Your task to perform on an android device: Clear the cart on amazon. Search for "dell xps" on amazon, select the first entry, and add it to the cart. Image 0: 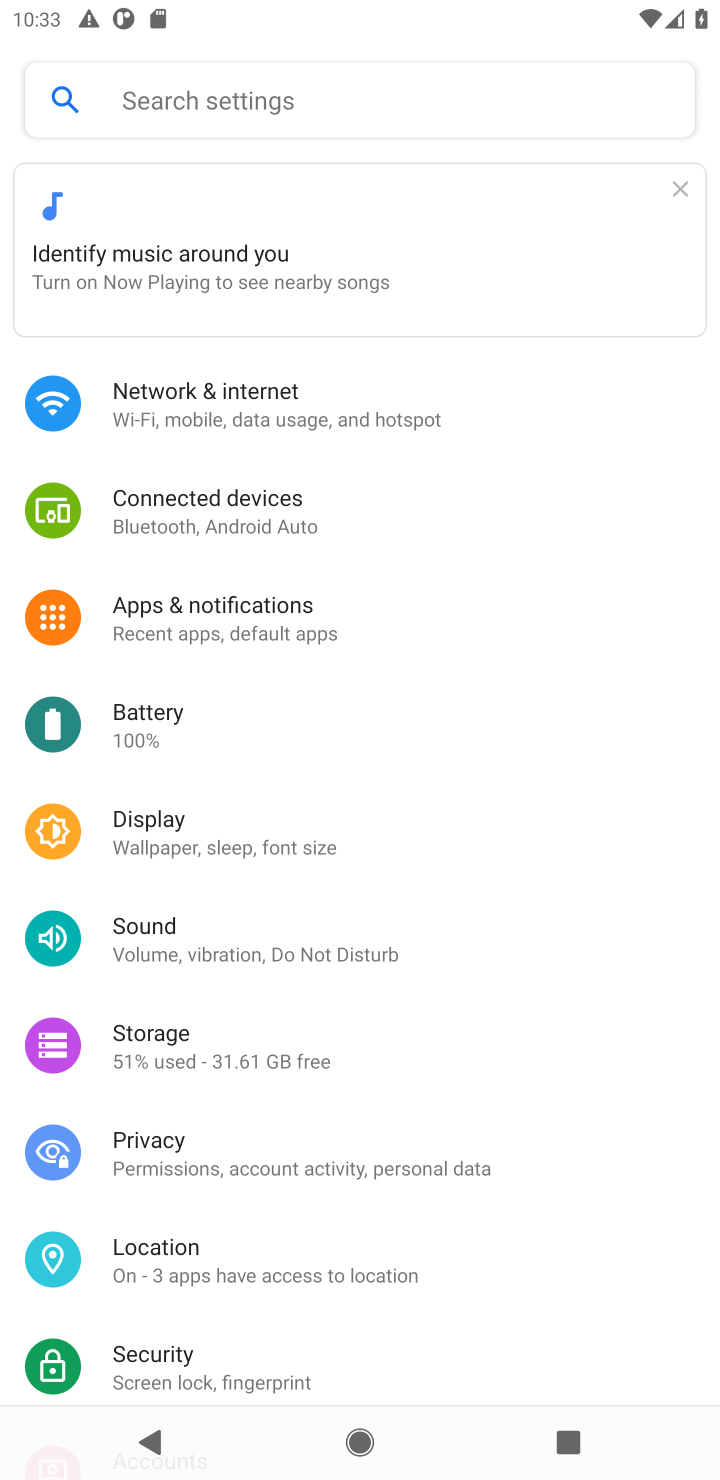
Step 0: press home button
Your task to perform on an android device: Clear the cart on amazon. Search for "dell xps" on amazon, select the first entry, and add it to the cart. Image 1: 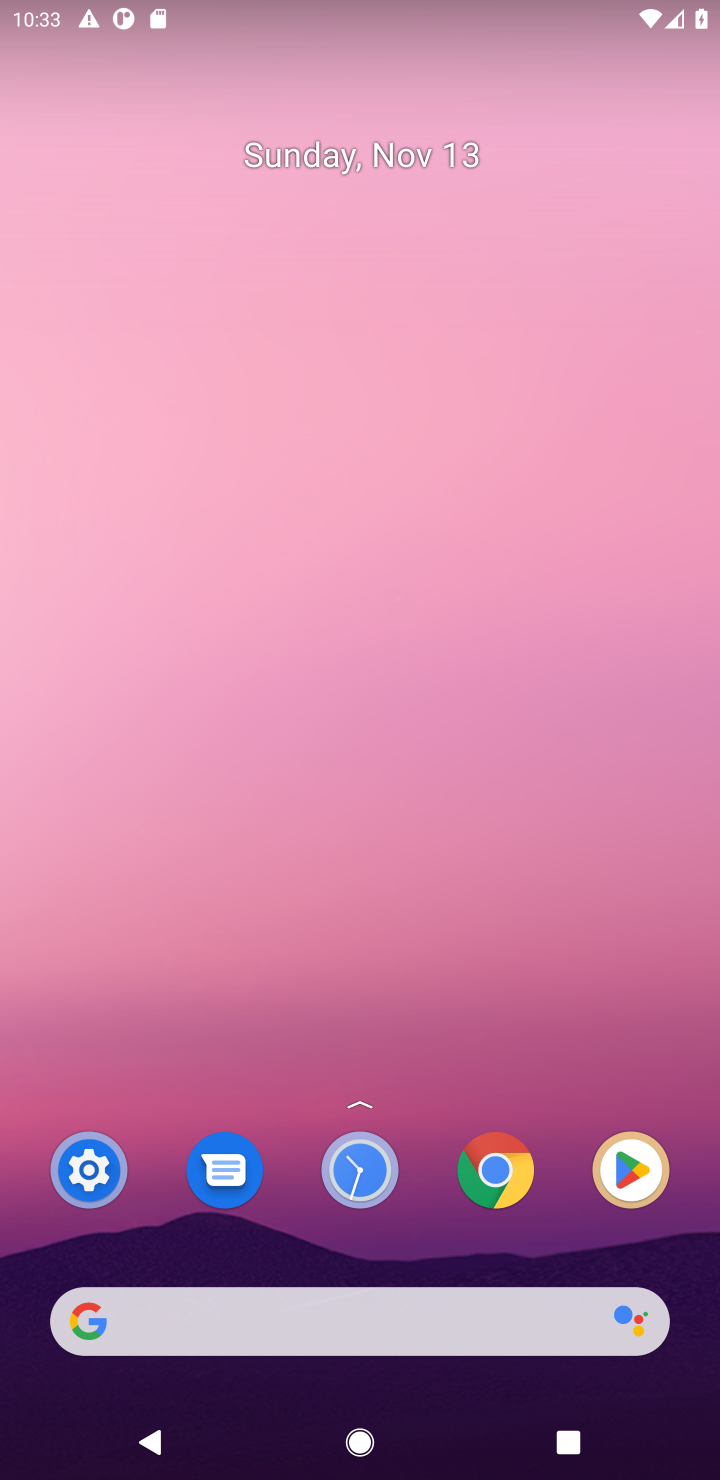
Step 1: click (381, 1307)
Your task to perform on an android device: Clear the cart on amazon. Search for "dell xps" on amazon, select the first entry, and add it to the cart. Image 2: 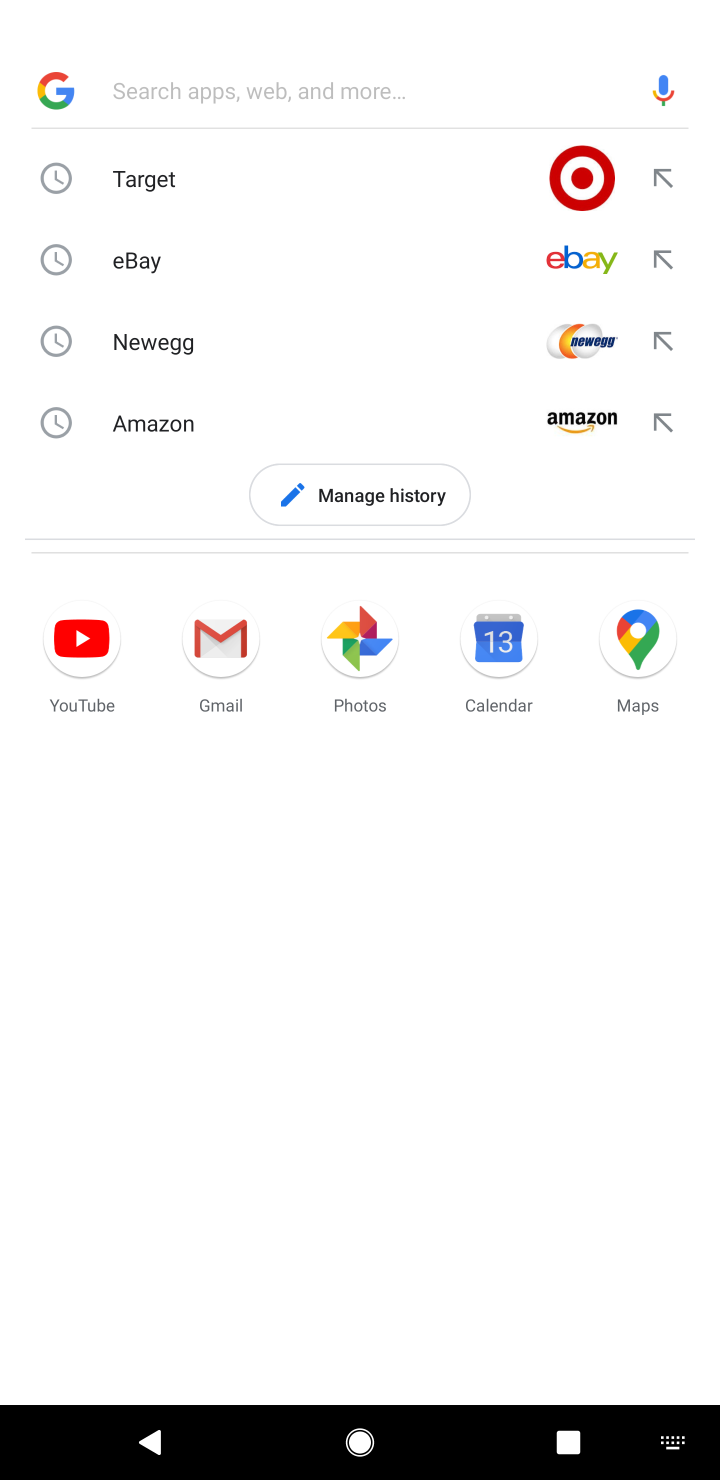
Step 2: type "amazon.com"
Your task to perform on an android device: Clear the cart on amazon. Search for "dell xps" on amazon, select the first entry, and add it to the cart. Image 3: 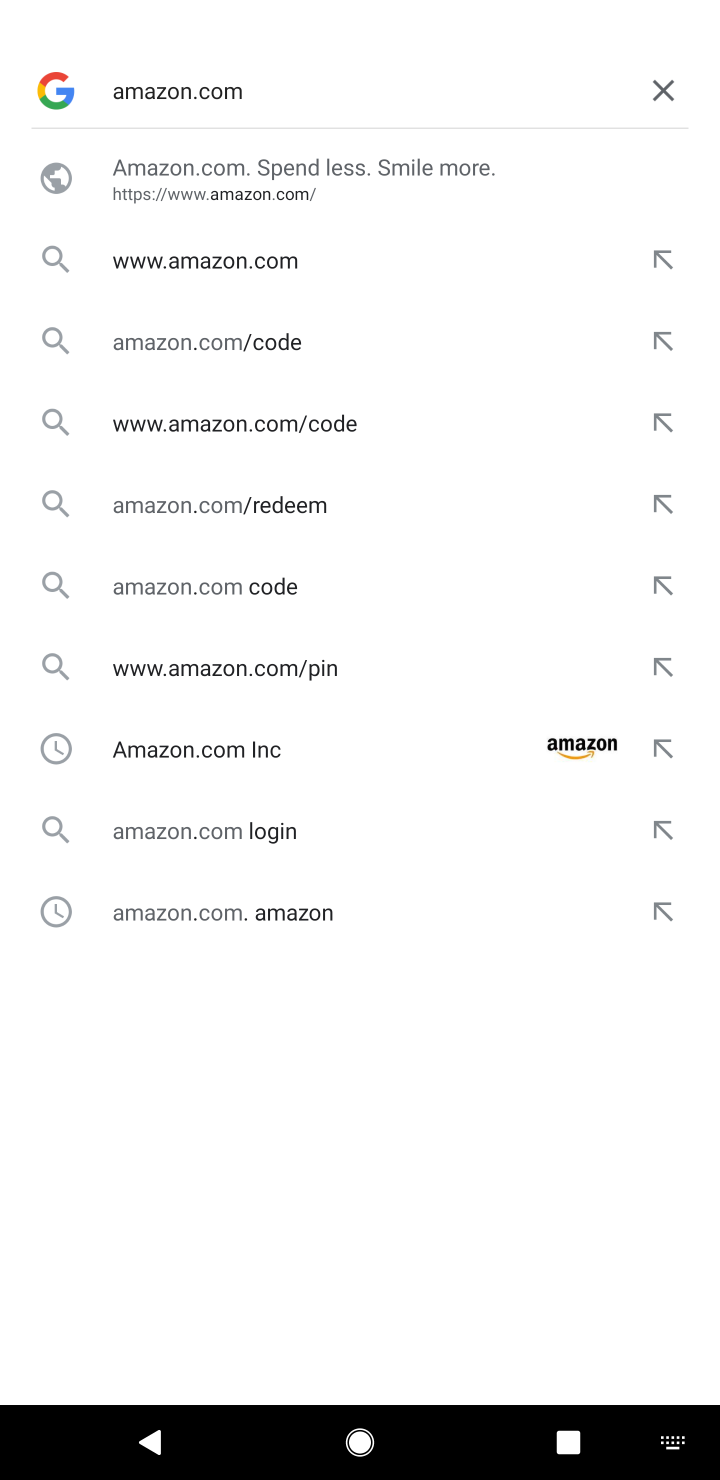
Step 3: click (405, 748)
Your task to perform on an android device: Clear the cart on amazon. Search for "dell xps" on amazon, select the first entry, and add it to the cart. Image 4: 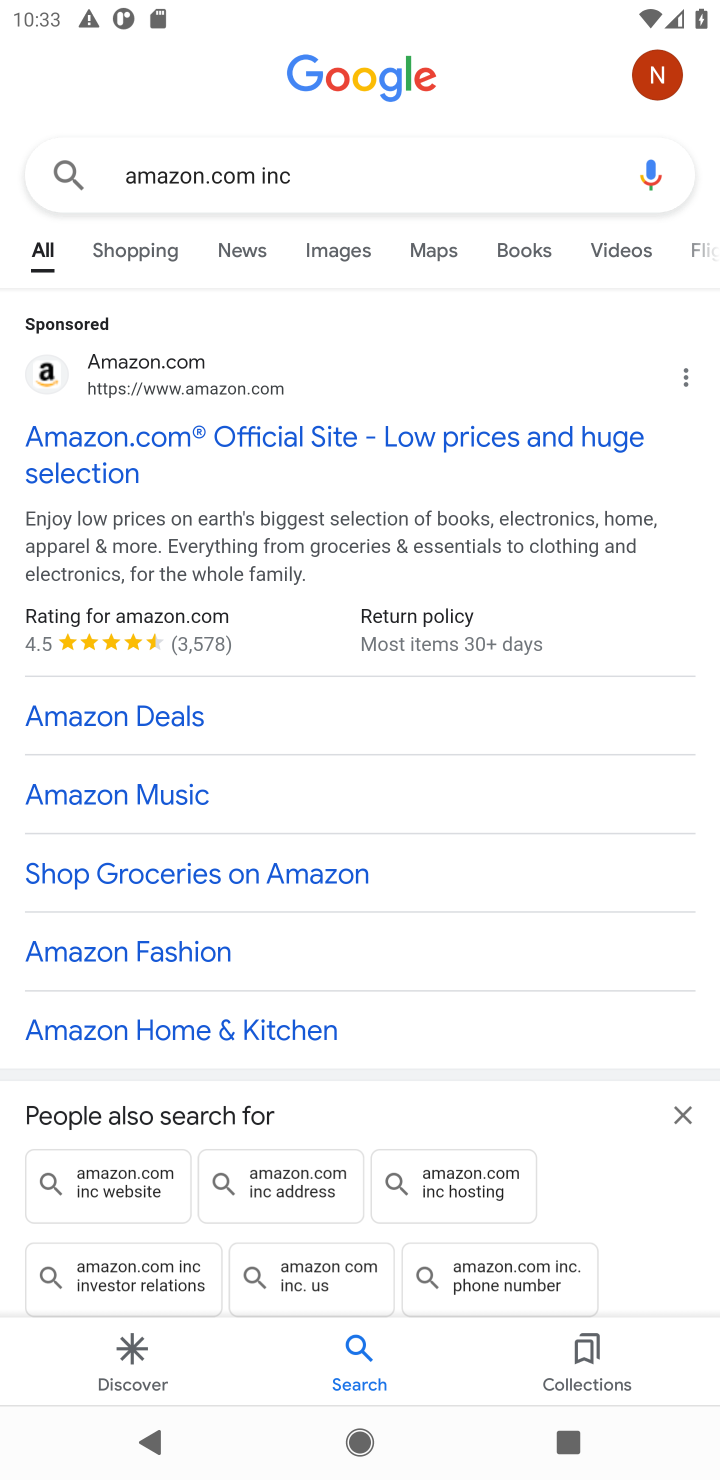
Step 4: click (131, 482)
Your task to perform on an android device: Clear the cart on amazon. Search for "dell xps" on amazon, select the first entry, and add it to the cart. Image 5: 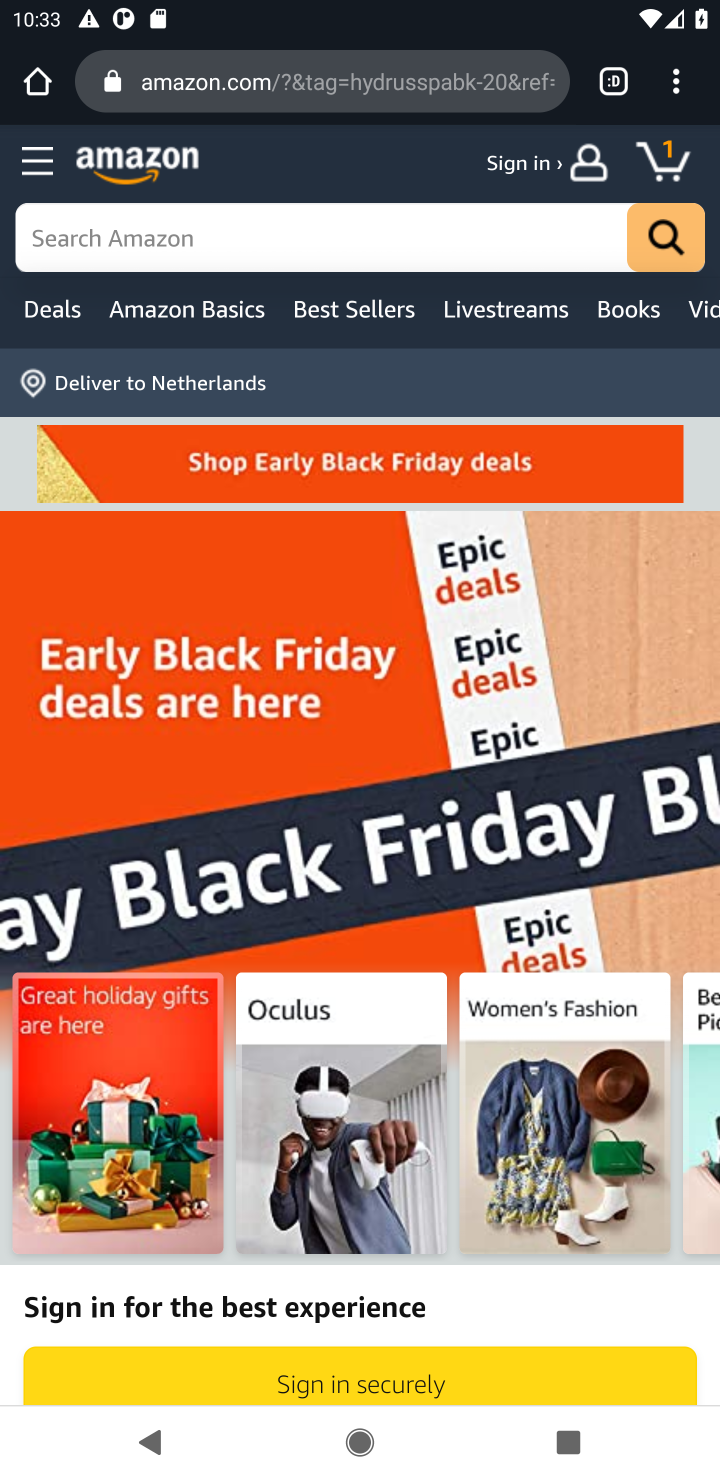
Step 5: click (341, 257)
Your task to perform on an android device: Clear the cart on amazon. Search for "dell xps" on amazon, select the first entry, and add it to the cart. Image 6: 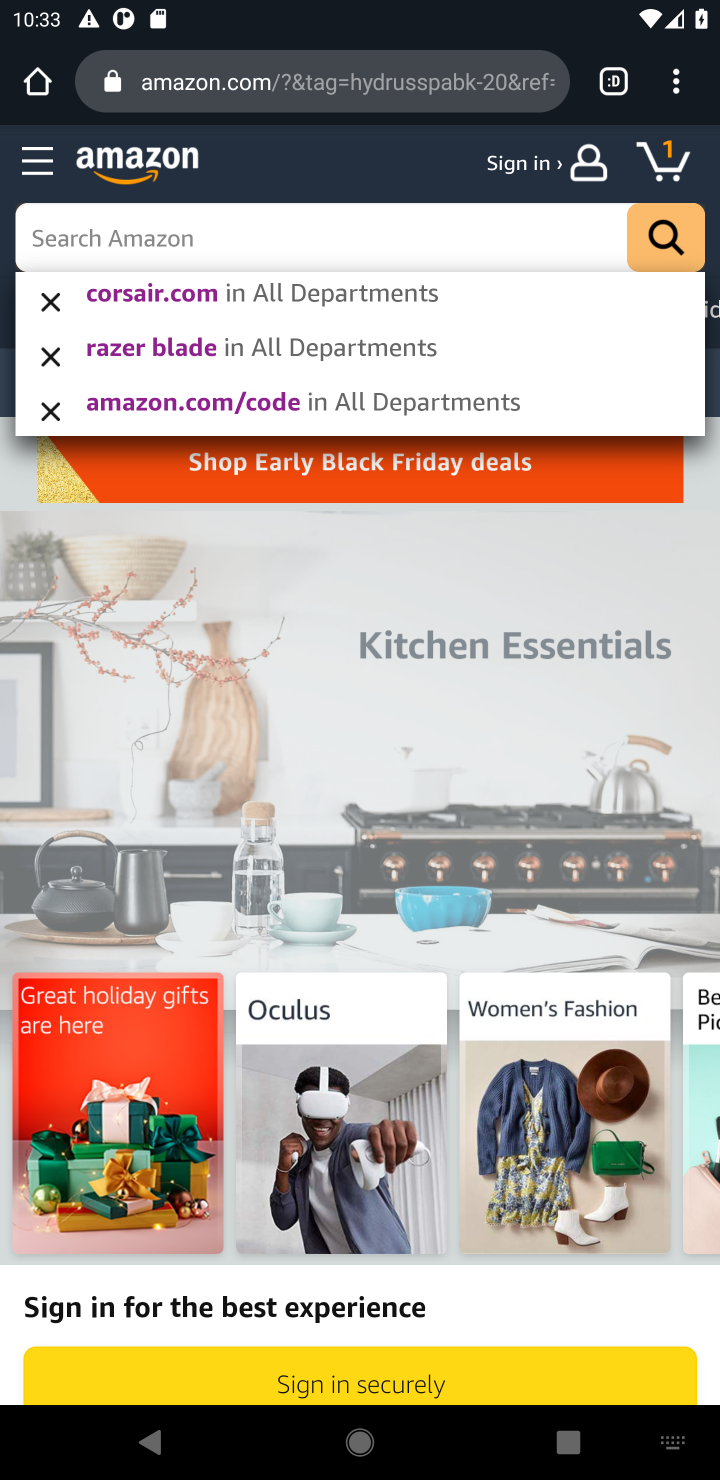
Step 6: type "dell xps"
Your task to perform on an android device: Clear the cart on amazon. Search for "dell xps" on amazon, select the first entry, and add it to the cart. Image 7: 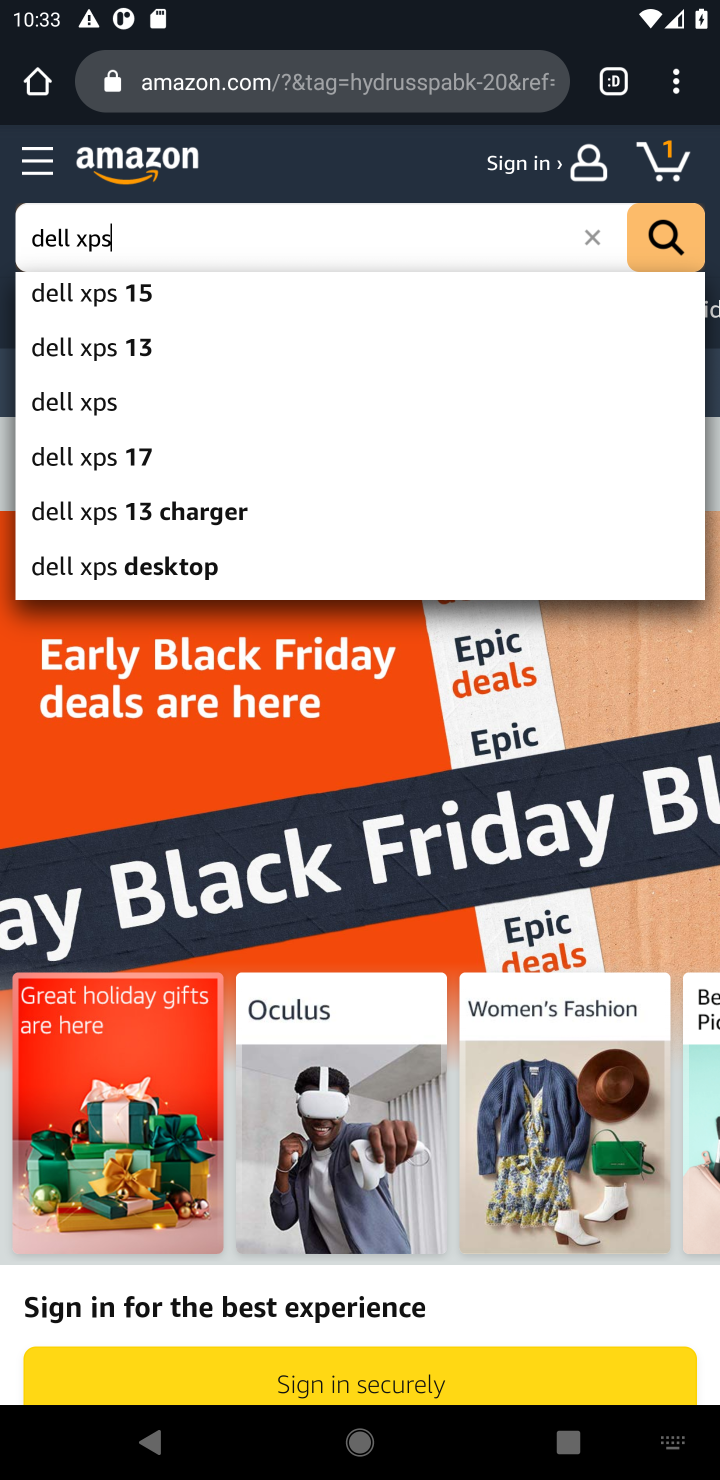
Step 7: click (104, 410)
Your task to perform on an android device: Clear the cart on amazon. Search for "dell xps" on amazon, select the first entry, and add it to the cart. Image 8: 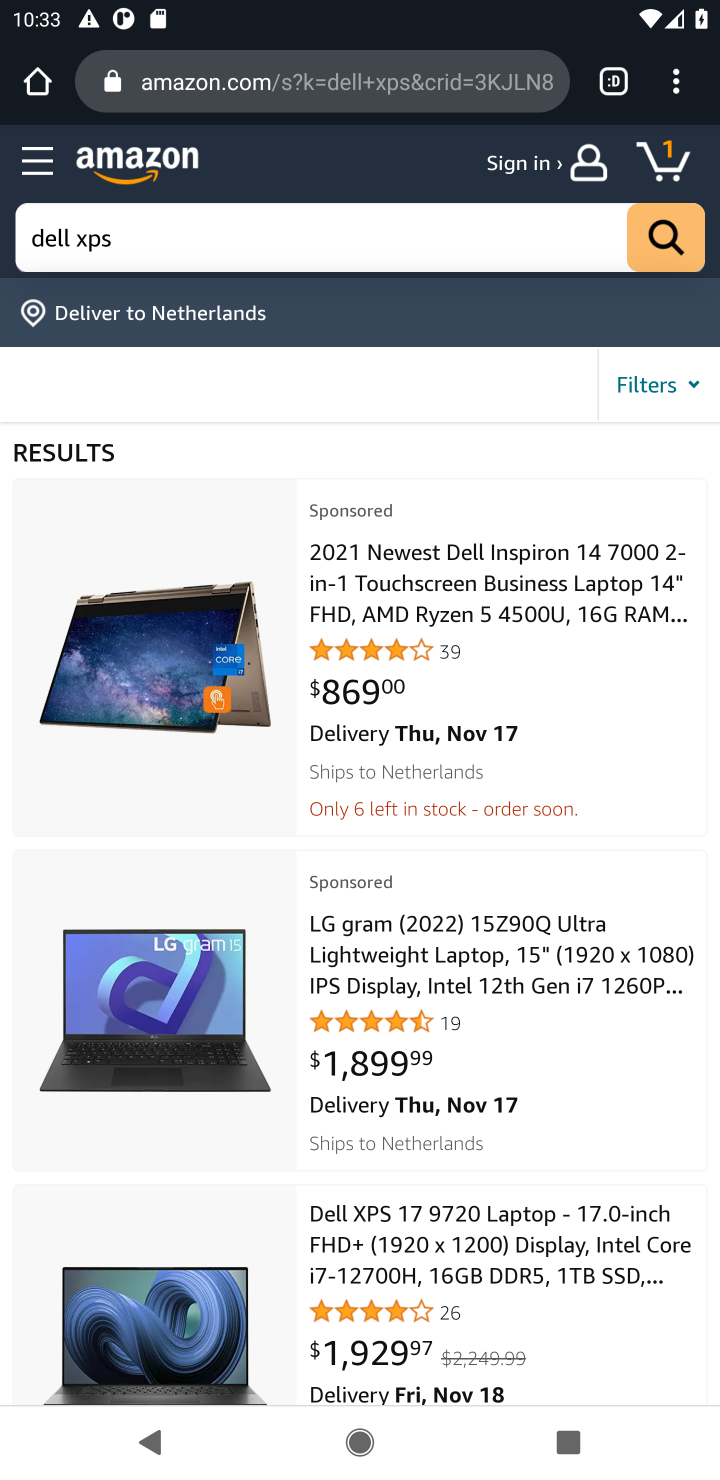
Step 8: click (425, 585)
Your task to perform on an android device: Clear the cart on amazon. Search for "dell xps" on amazon, select the first entry, and add it to the cart. Image 9: 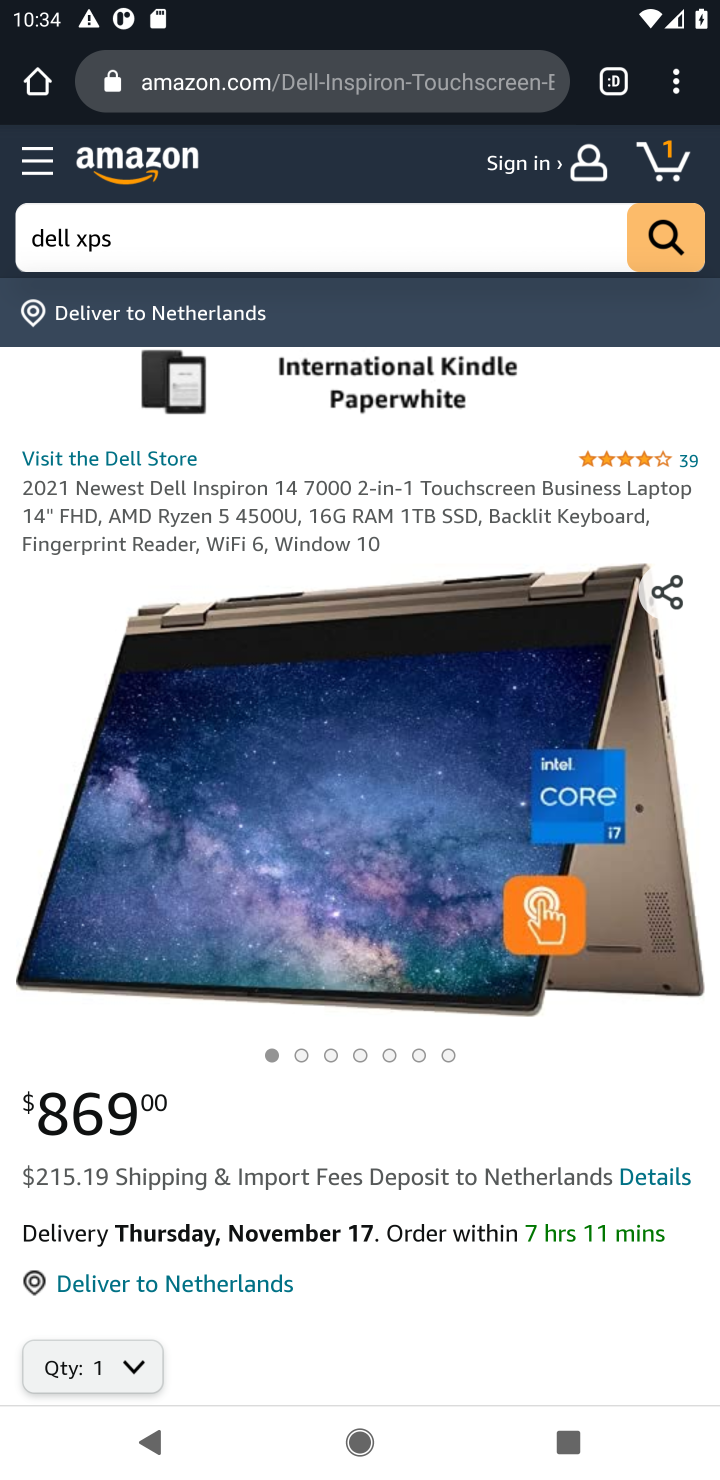
Step 9: drag from (470, 1312) to (504, 924)
Your task to perform on an android device: Clear the cart on amazon. Search for "dell xps" on amazon, select the first entry, and add it to the cart. Image 10: 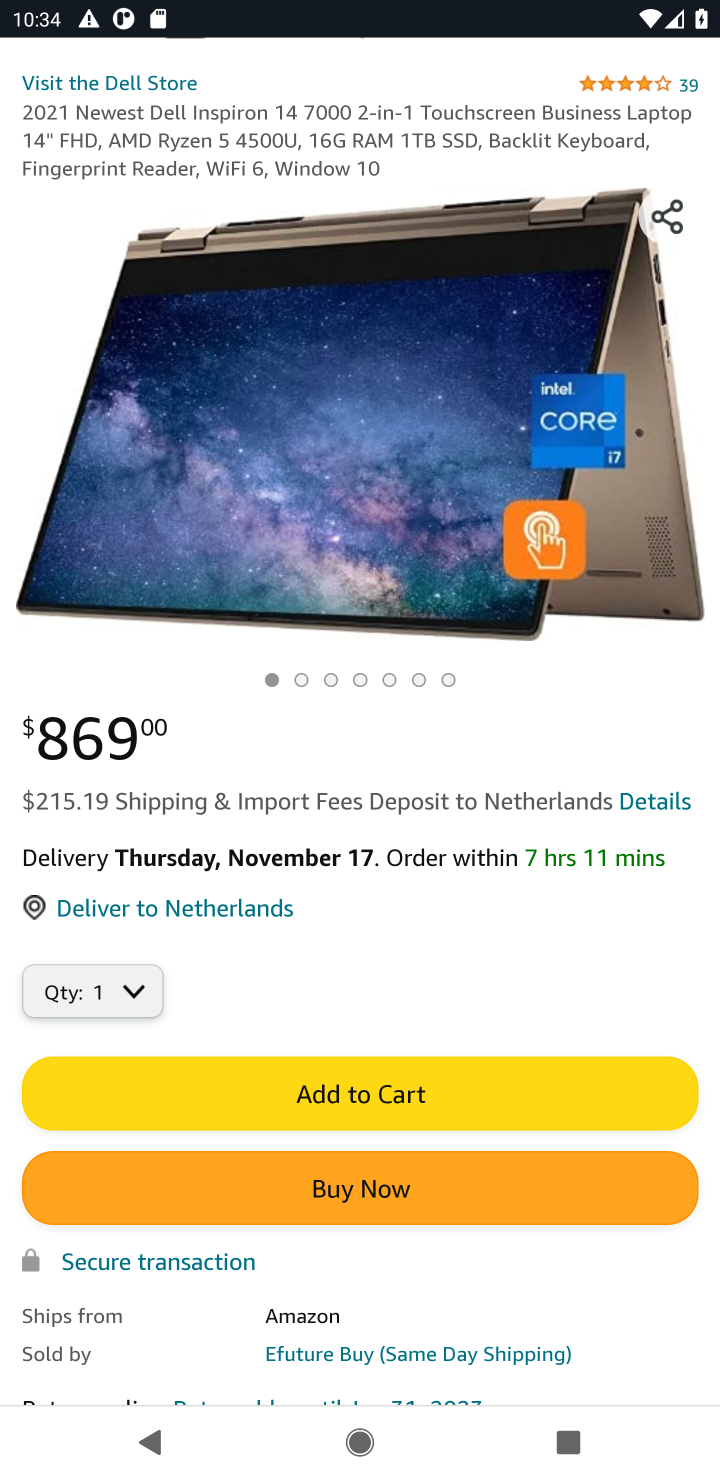
Step 10: click (416, 1100)
Your task to perform on an android device: Clear the cart on amazon. Search for "dell xps" on amazon, select the first entry, and add it to the cart. Image 11: 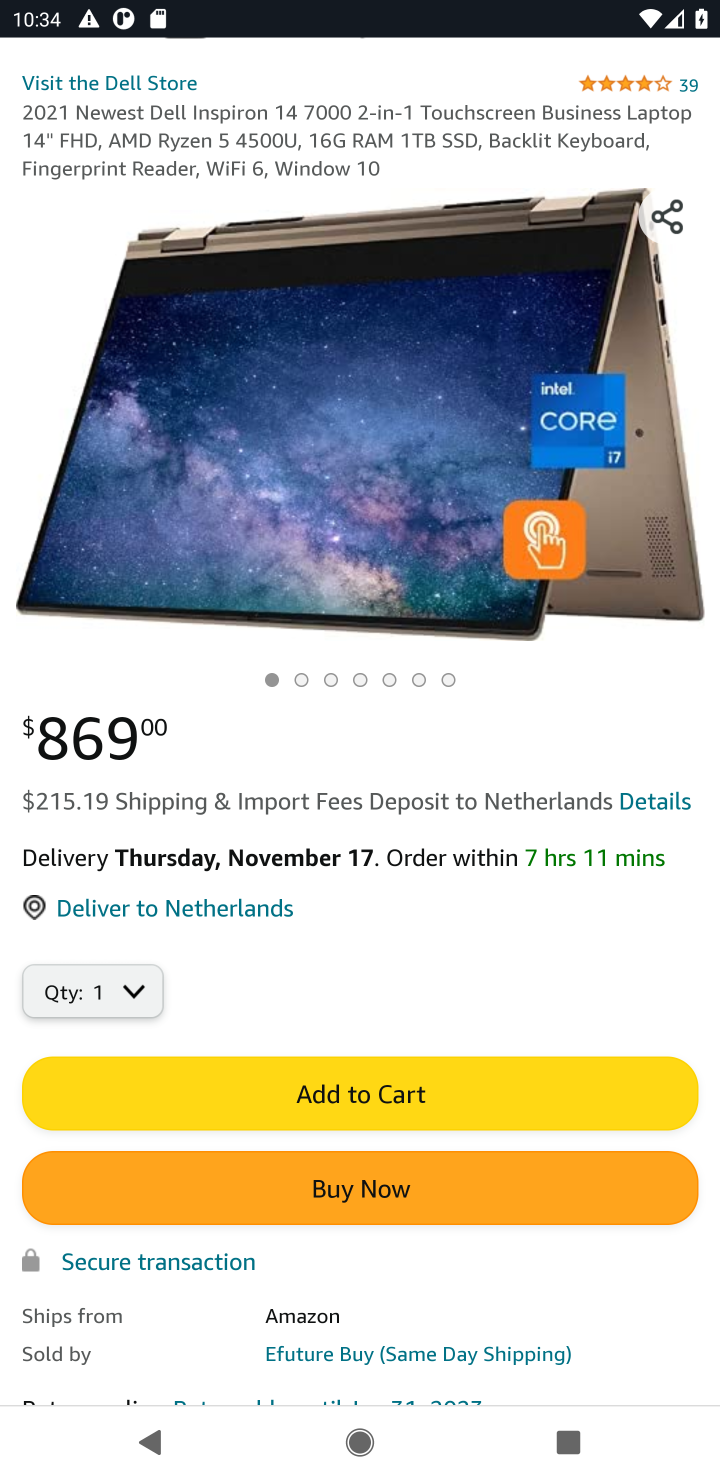
Step 11: task complete